Your task to perform on an android device: Clear the cart on costco.com. Image 0: 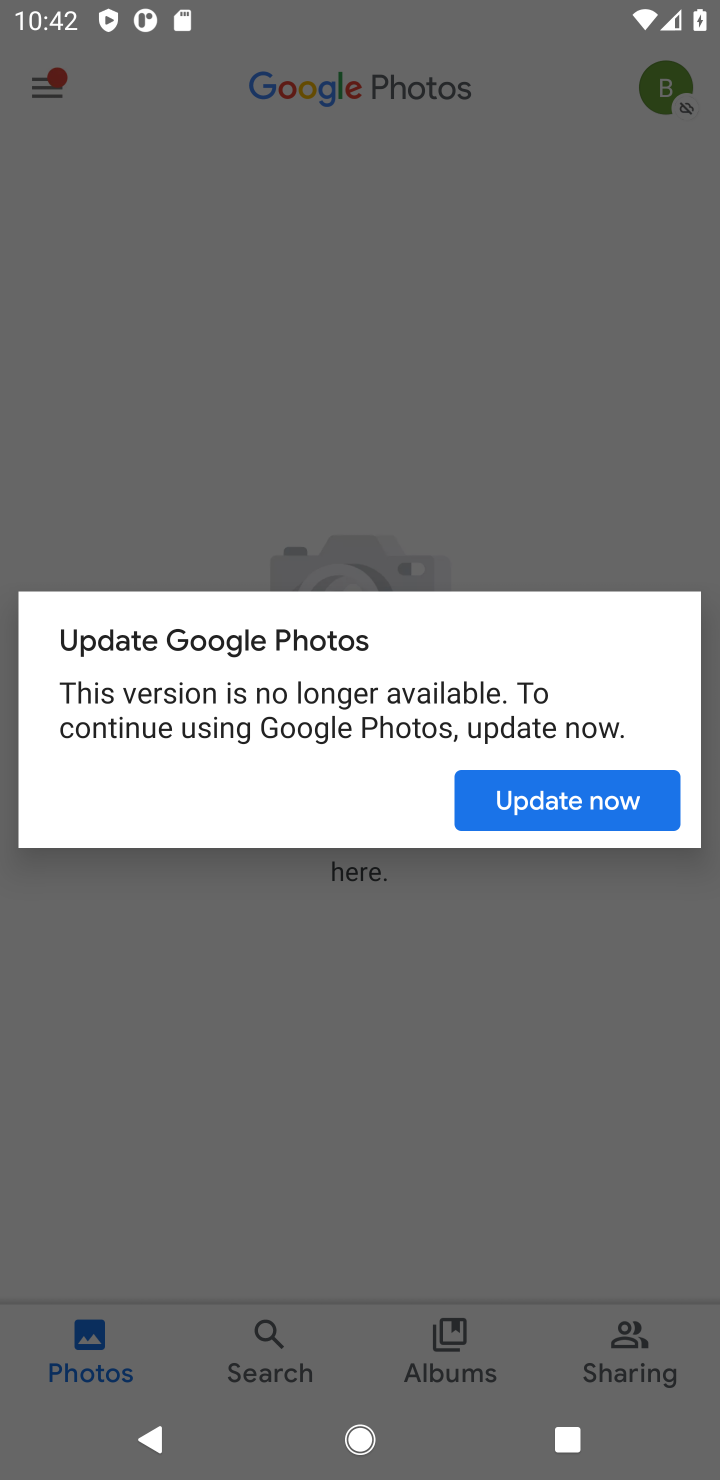
Step 0: press home button
Your task to perform on an android device: Clear the cart on costco.com. Image 1: 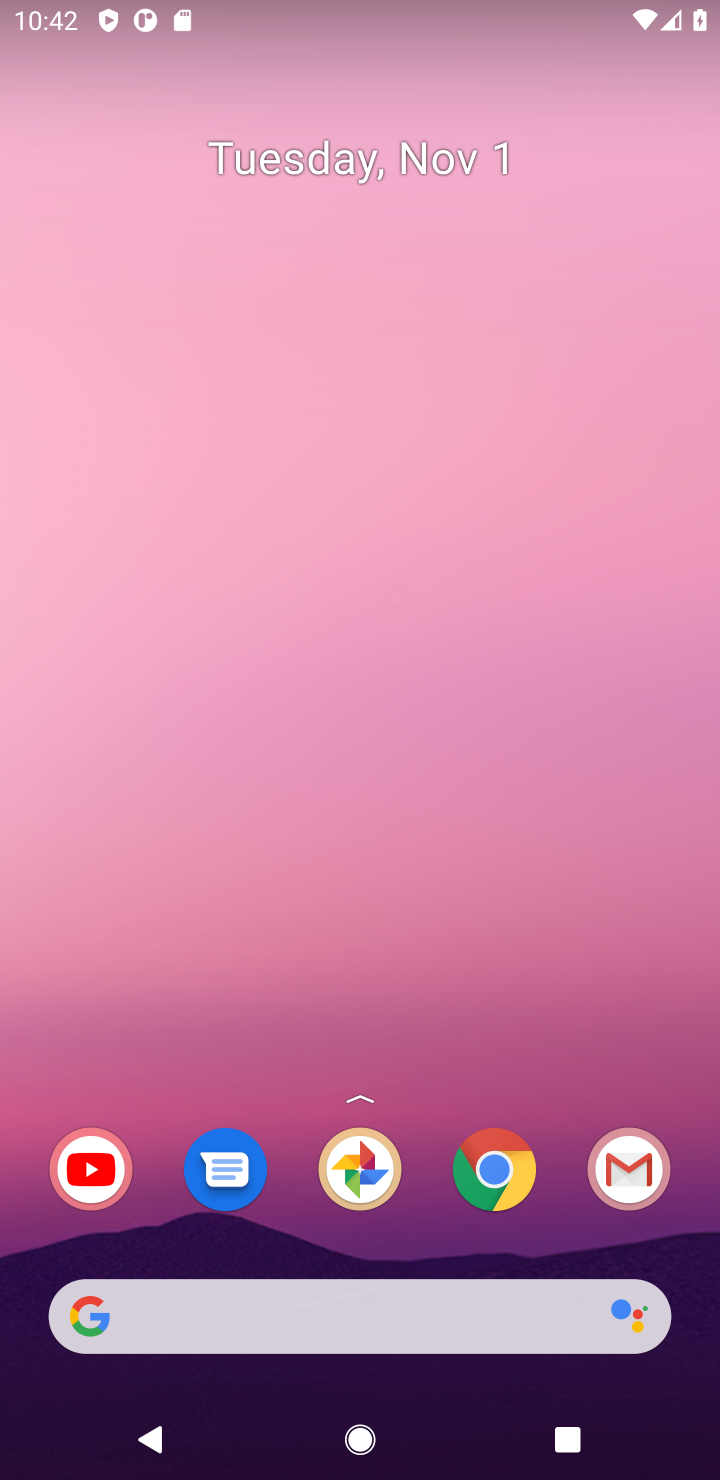
Step 1: click (491, 1189)
Your task to perform on an android device: Clear the cart on costco.com. Image 2: 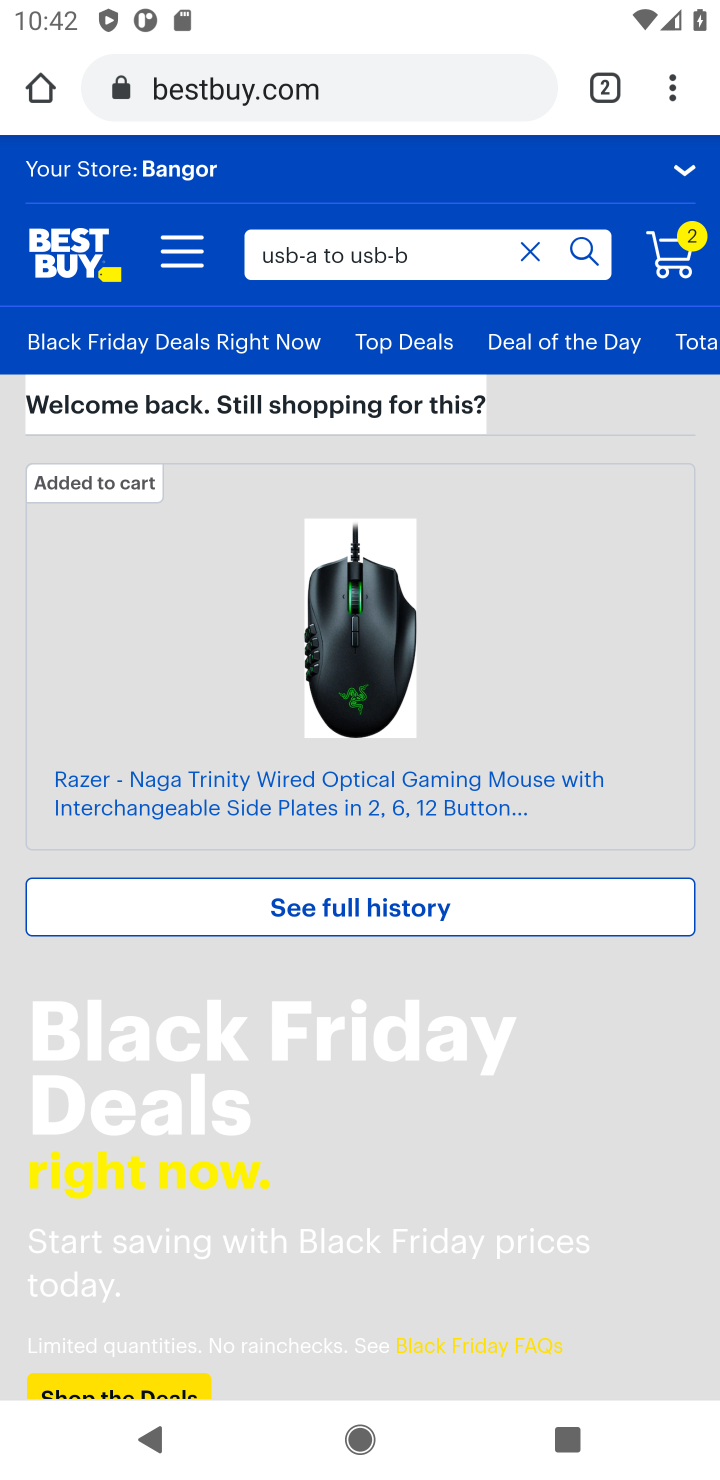
Step 2: click (403, 102)
Your task to perform on an android device: Clear the cart on costco.com. Image 3: 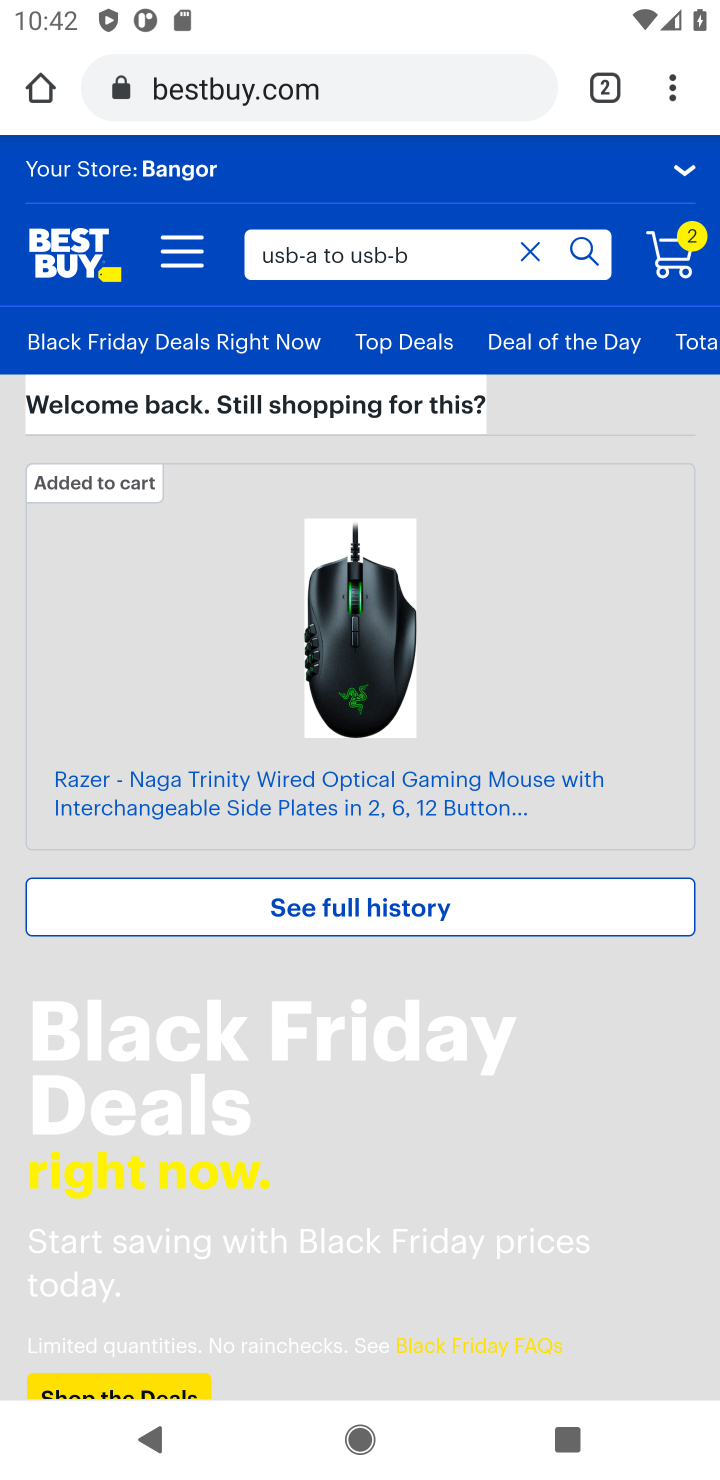
Step 3: click (403, 102)
Your task to perform on an android device: Clear the cart on costco.com. Image 4: 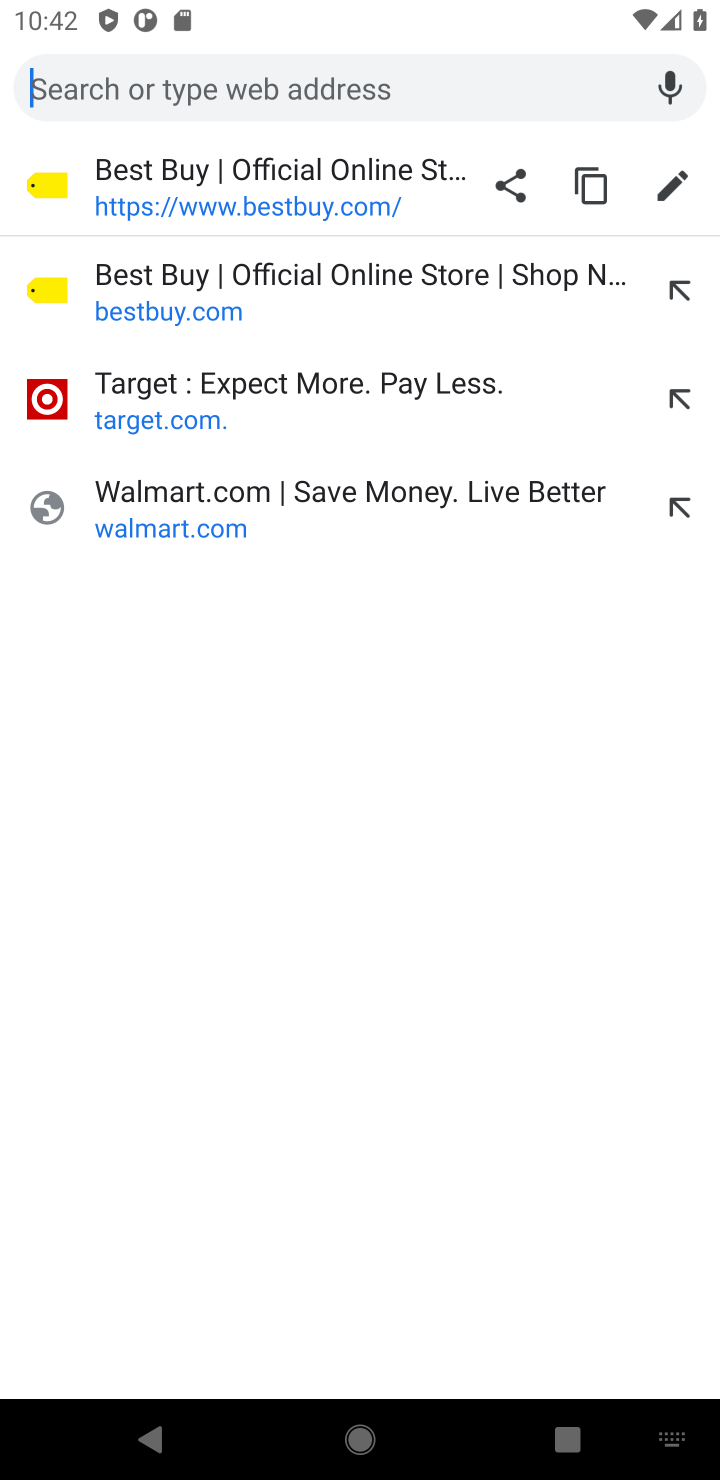
Step 4: type "costco.com"
Your task to perform on an android device: Clear the cart on costco.com. Image 5: 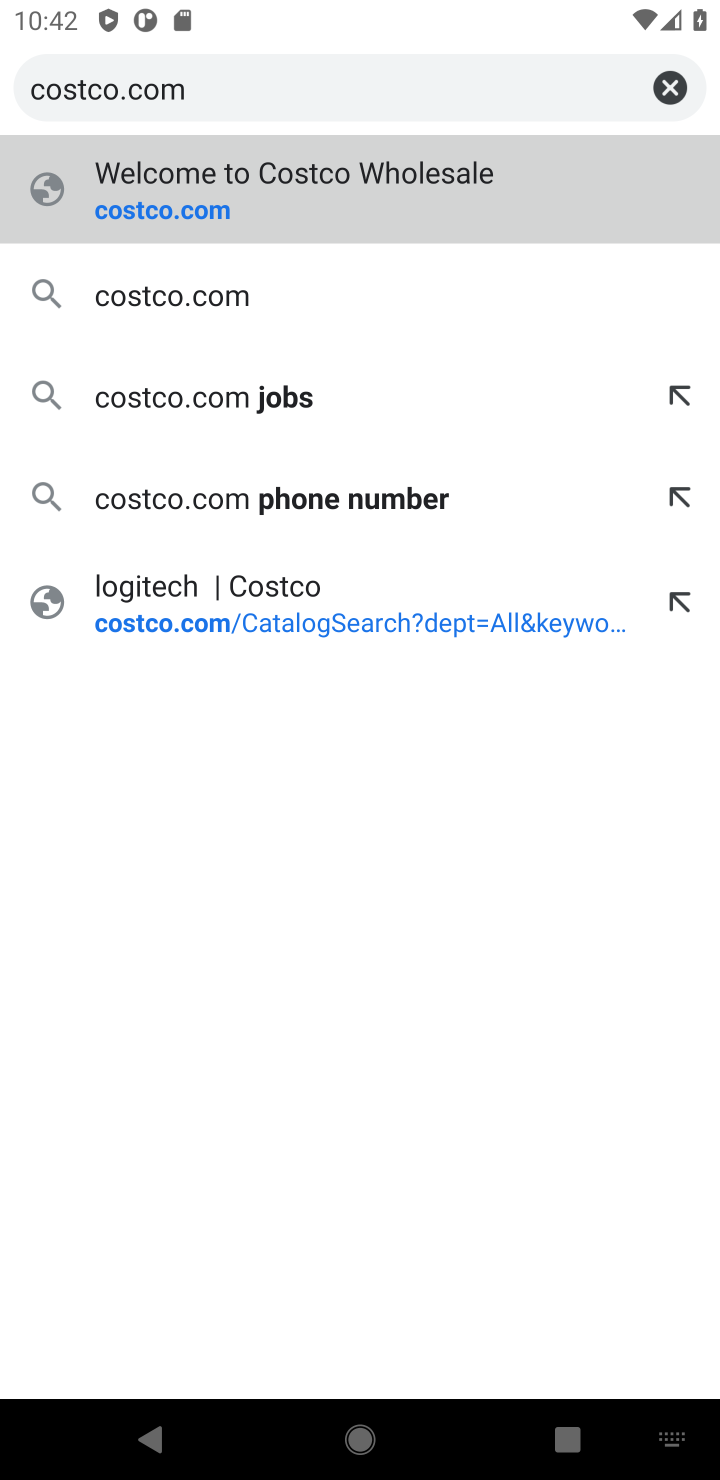
Step 5: click (232, 286)
Your task to perform on an android device: Clear the cart on costco.com. Image 6: 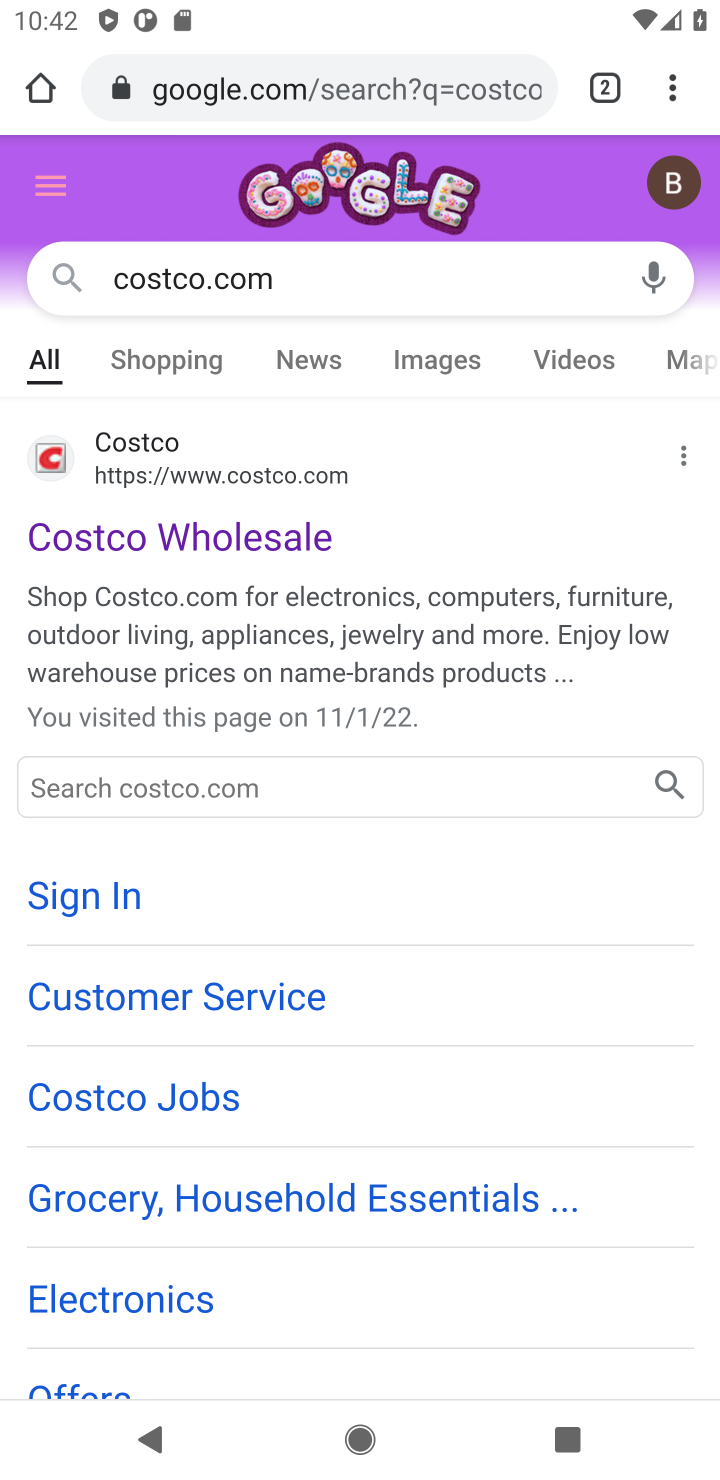
Step 6: drag from (333, 1185) to (402, 731)
Your task to perform on an android device: Clear the cart on costco.com. Image 7: 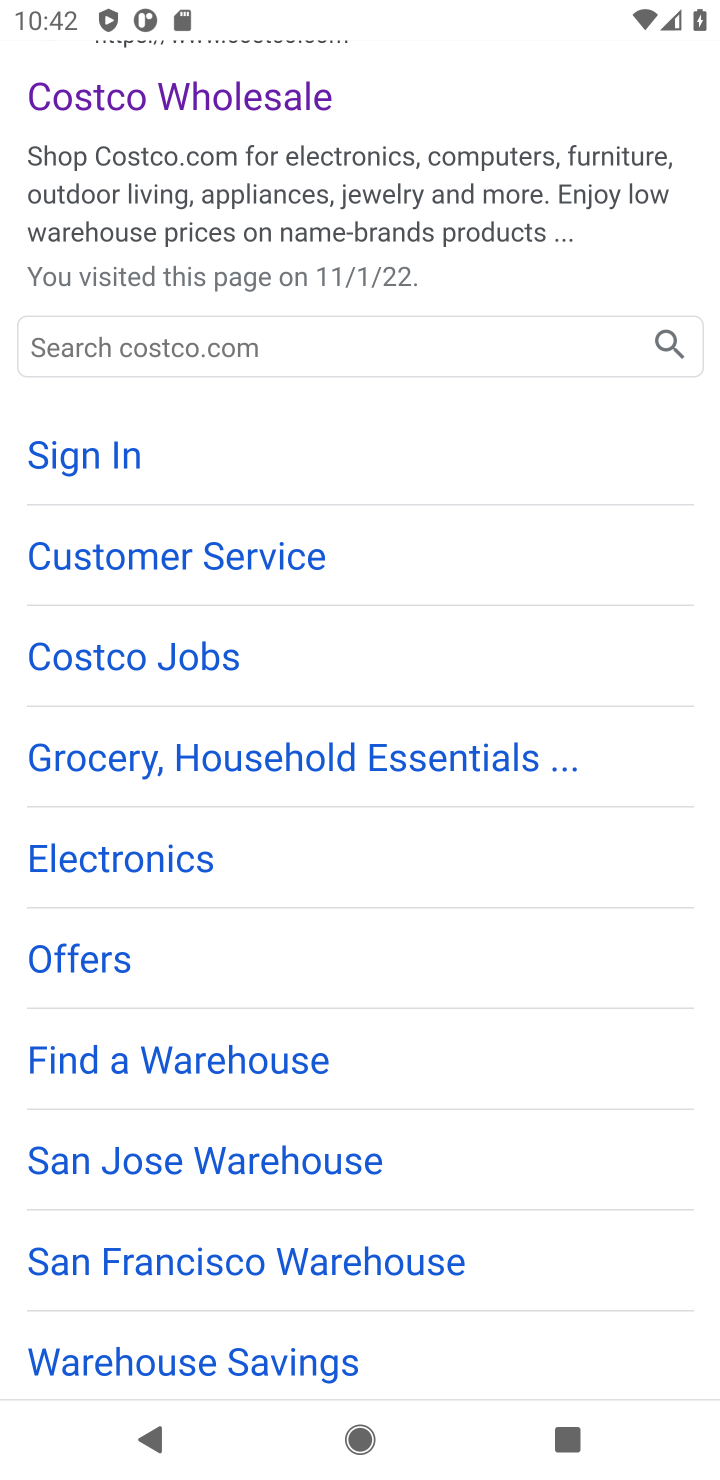
Step 7: drag from (352, 936) to (387, 399)
Your task to perform on an android device: Clear the cart on costco.com. Image 8: 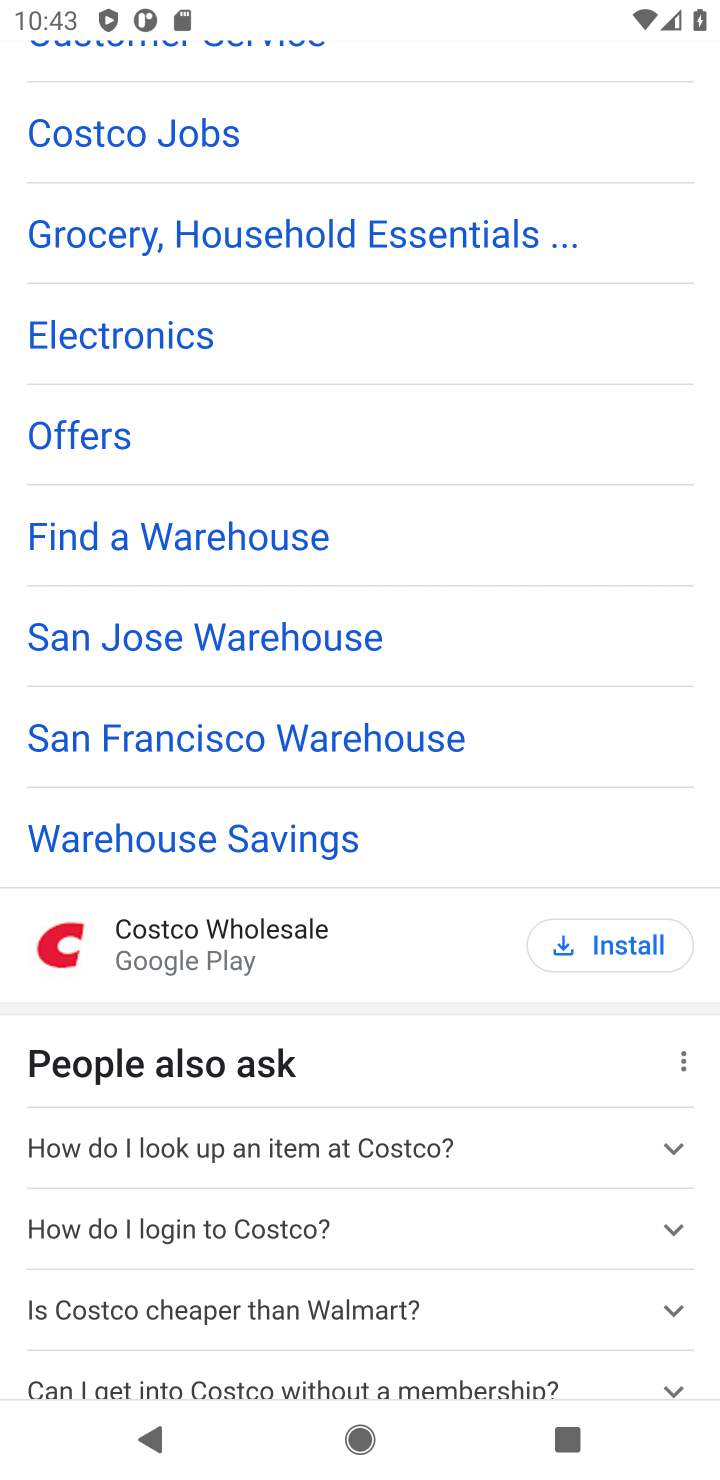
Step 8: drag from (368, 399) to (552, 1194)
Your task to perform on an android device: Clear the cart on costco.com. Image 9: 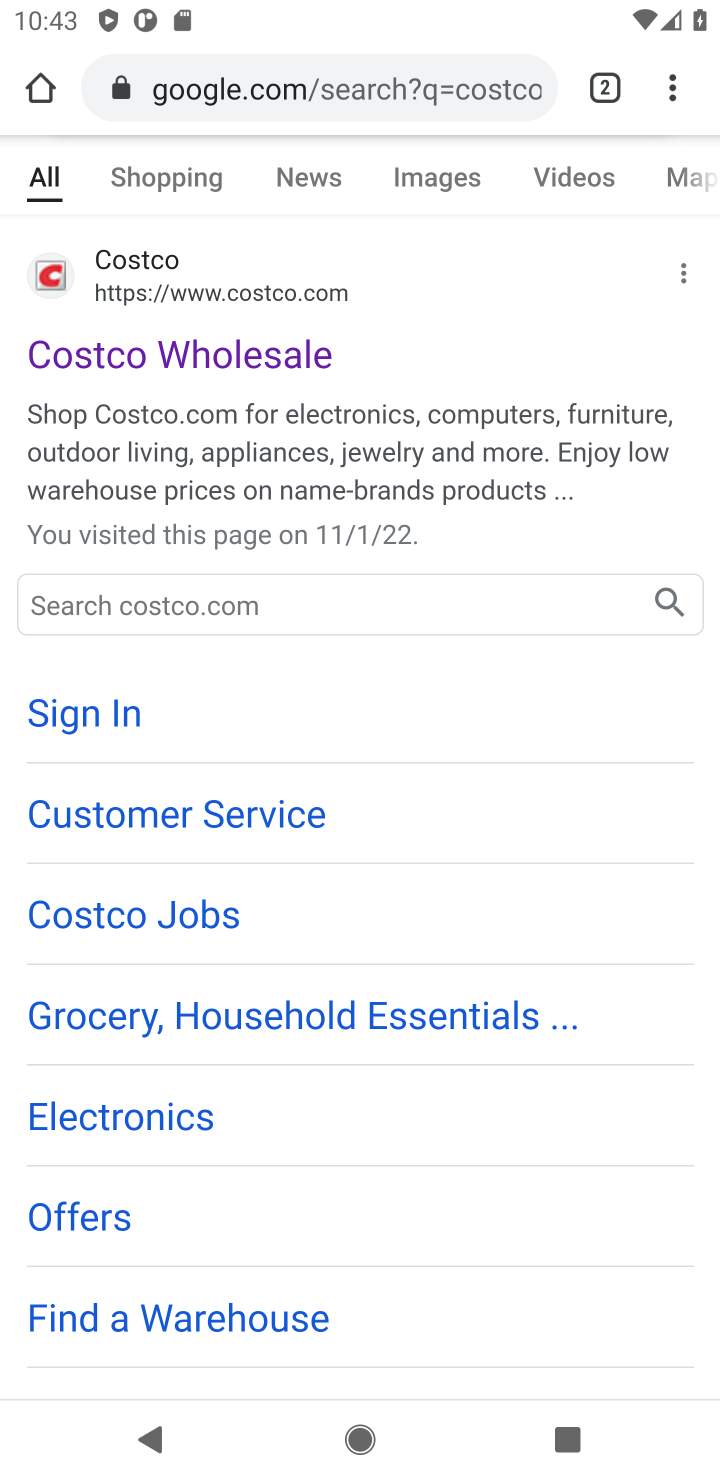
Step 9: click (178, 282)
Your task to perform on an android device: Clear the cart on costco.com. Image 10: 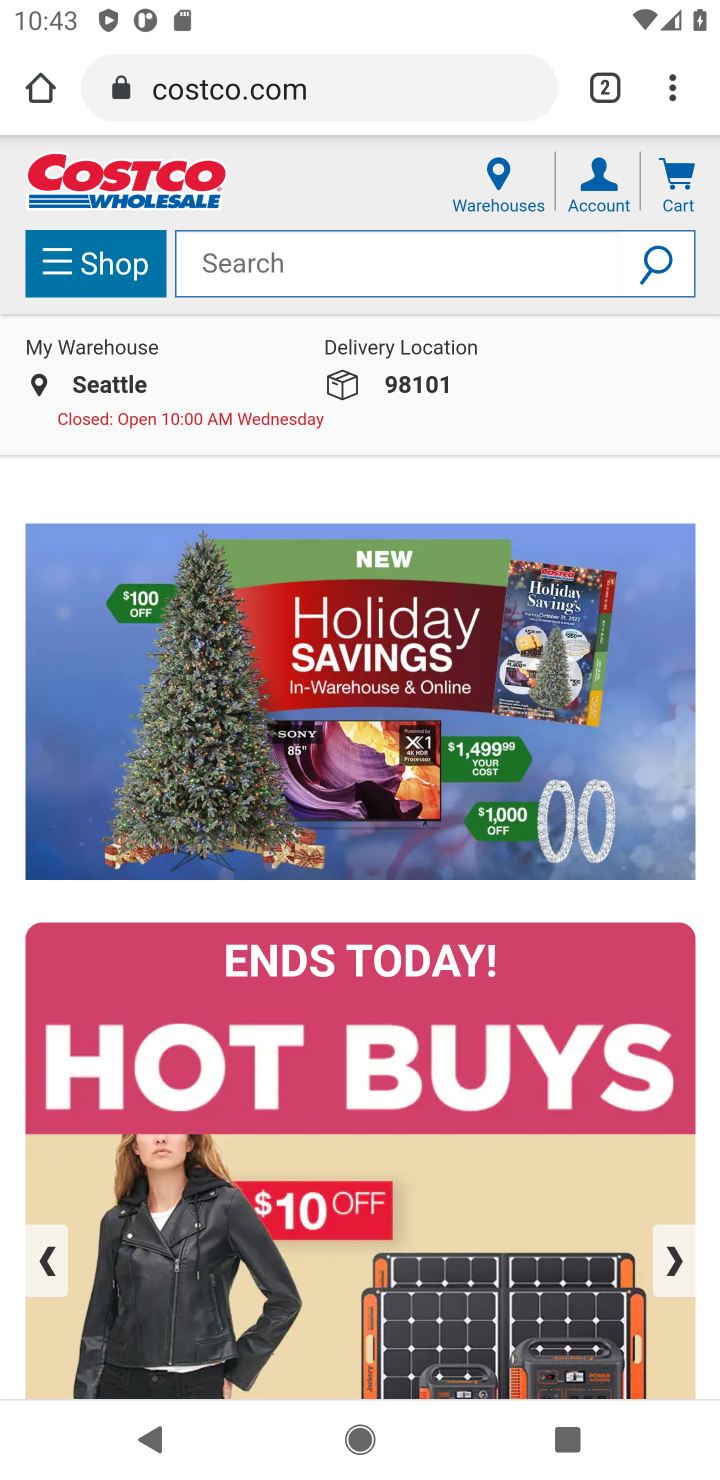
Step 10: click (669, 188)
Your task to perform on an android device: Clear the cart on costco.com. Image 11: 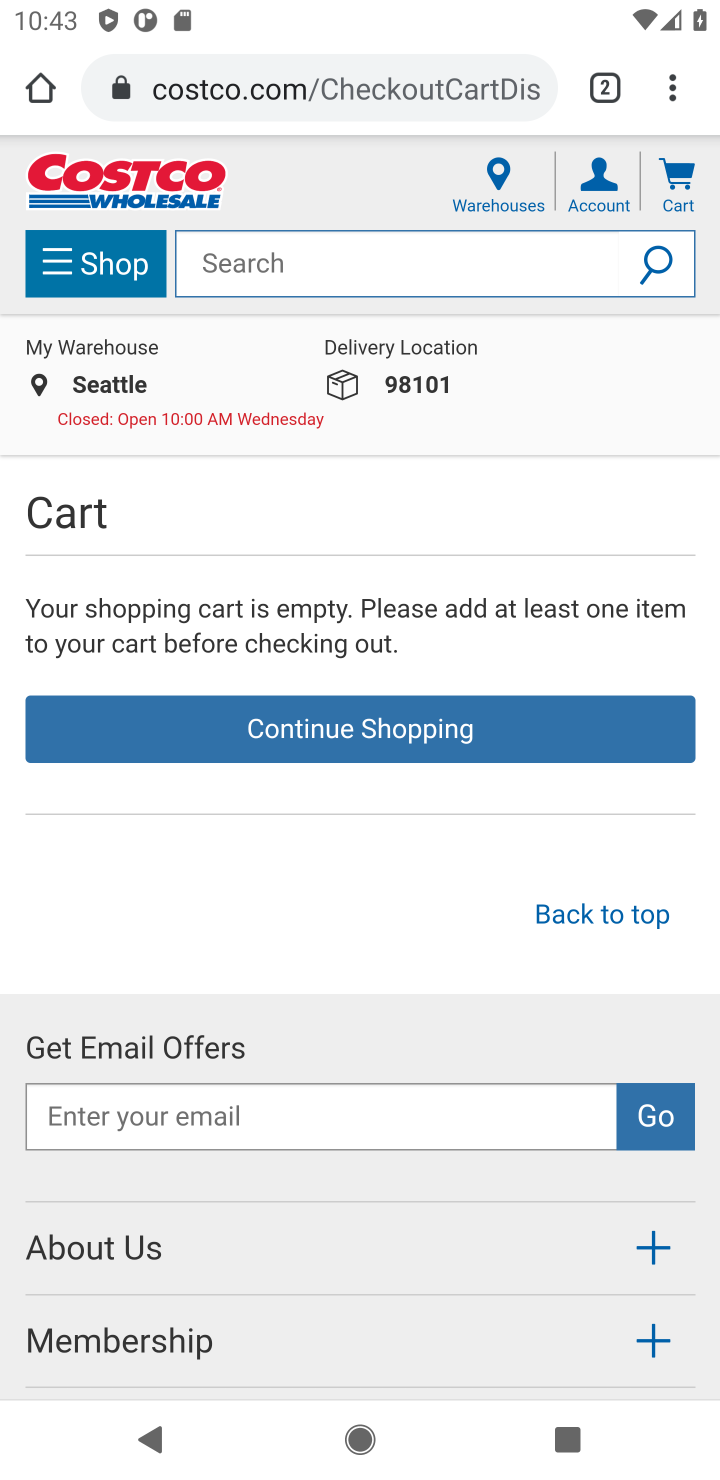
Step 11: task complete